Your task to perform on an android device: Open Amazon Image 0: 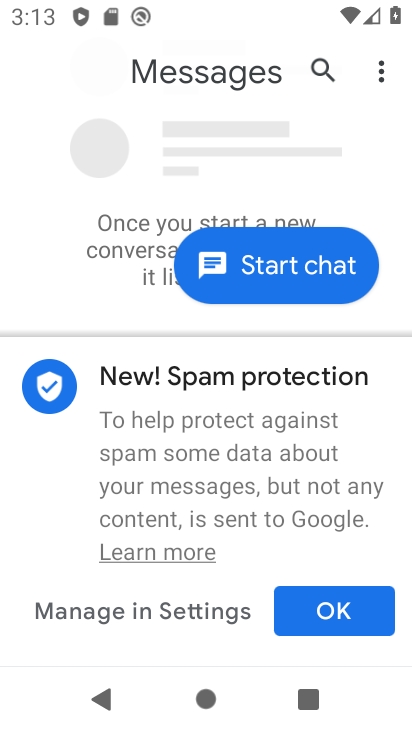
Step 0: press home button
Your task to perform on an android device: Open Amazon Image 1: 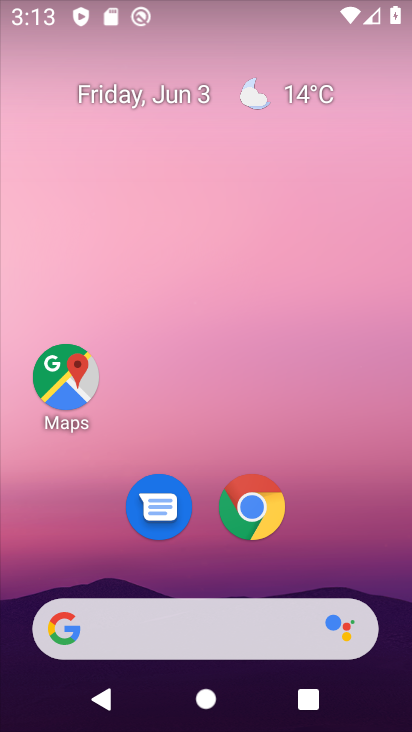
Step 1: click (254, 509)
Your task to perform on an android device: Open Amazon Image 2: 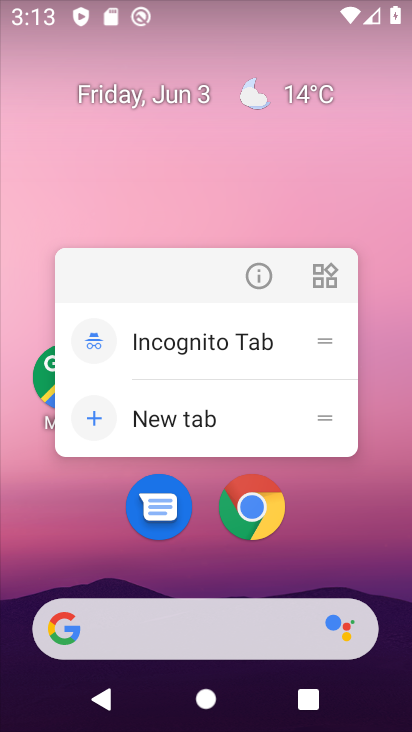
Step 2: click (246, 518)
Your task to perform on an android device: Open Amazon Image 3: 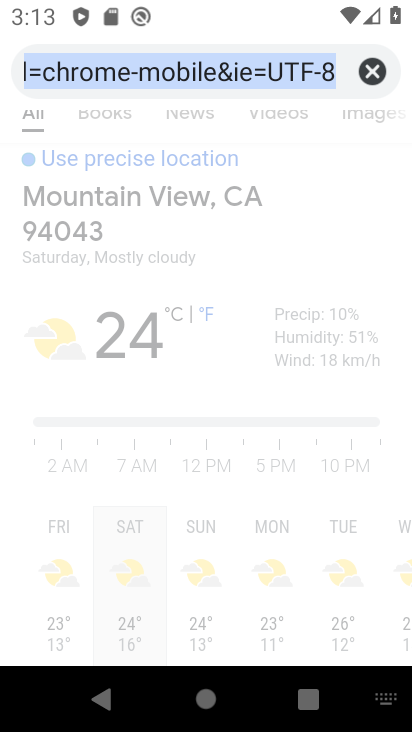
Step 3: click (179, 80)
Your task to perform on an android device: Open Amazon Image 4: 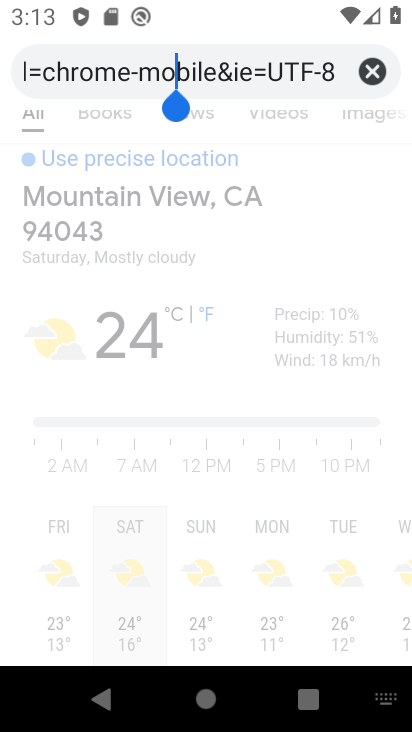
Step 4: click (365, 68)
Your task to perform on an android device: Open Amazon Image 5: 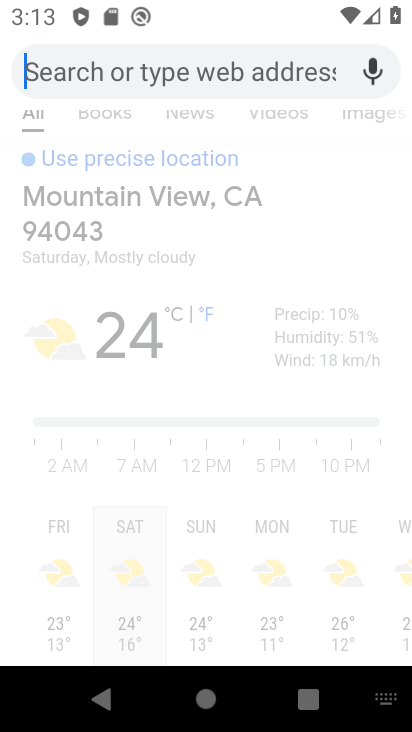
Step 5: click (211, 74)
Your task to perform on an android device: Open Amazon Image 6: 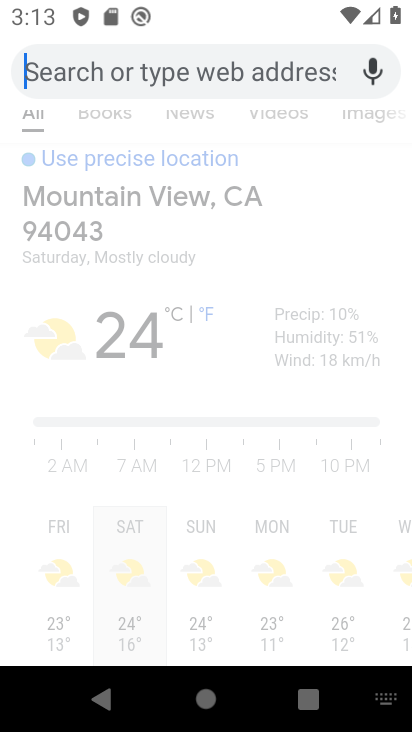
Step 6: type "Amazon"
Your task to perform on an android device: Open Amazon Image 7: 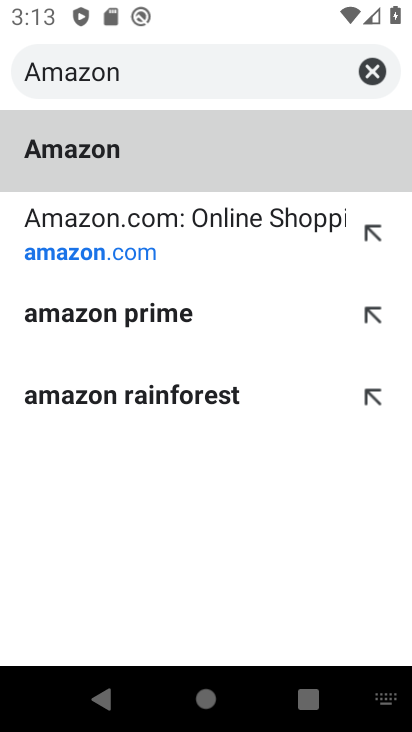
Step 7: click (165, 167)
Your task to perform on an android device: Open Amazon Image 8: 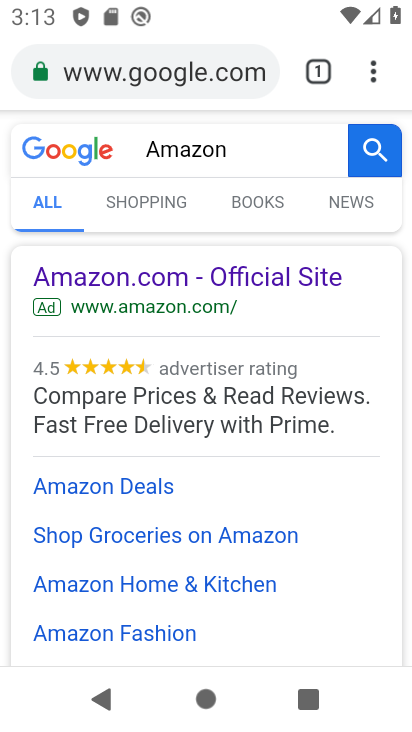
Step 8: task complete